Your task to perform on an android device: Check the weather Image 0: 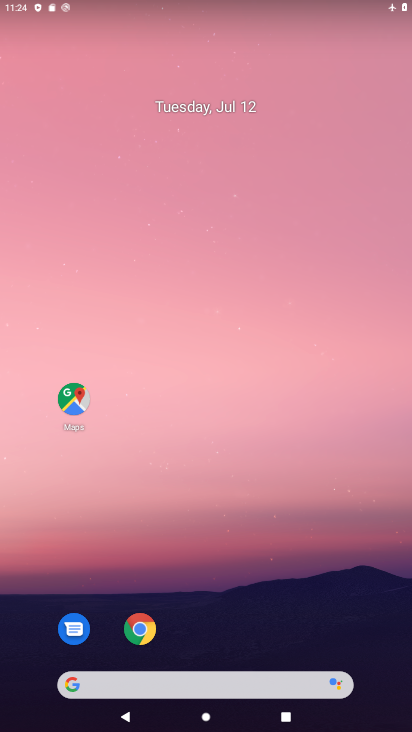
Step 0: click (307, 684)
Your task to perform on an android device: Check the weather Image 1: 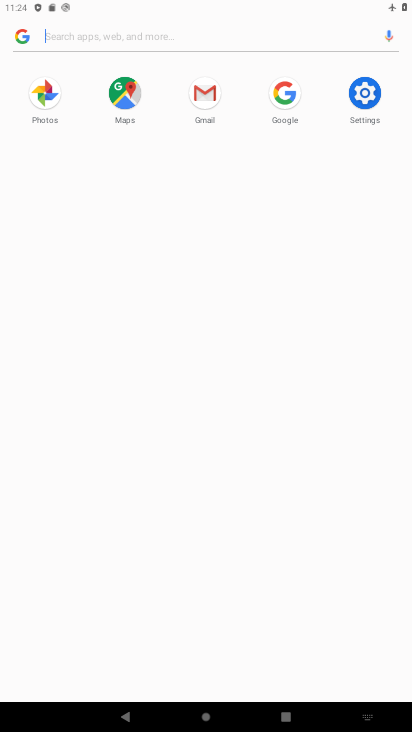
Step 1: type "weather"
Your task to perform on an android device: Check the weather Image 2: 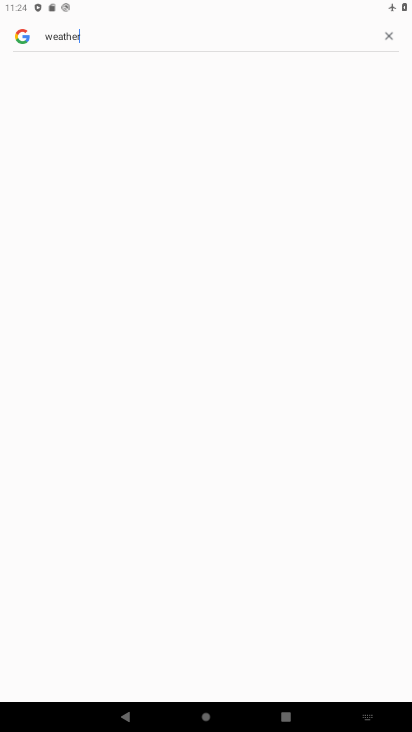
Step 2: task complete